Your task to perform on an android device: open a bookmark in the chrome app Image 0: 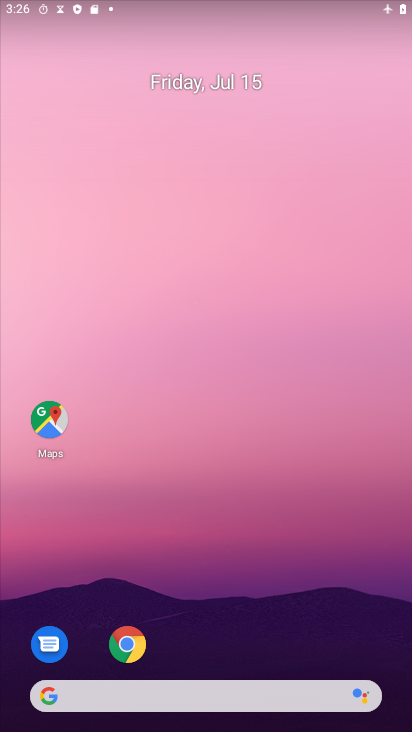
Step 0: drag from (314, 675) to (410, 57)
Your task to perform on an android device: open a bookmark in the chrome app Image 1: 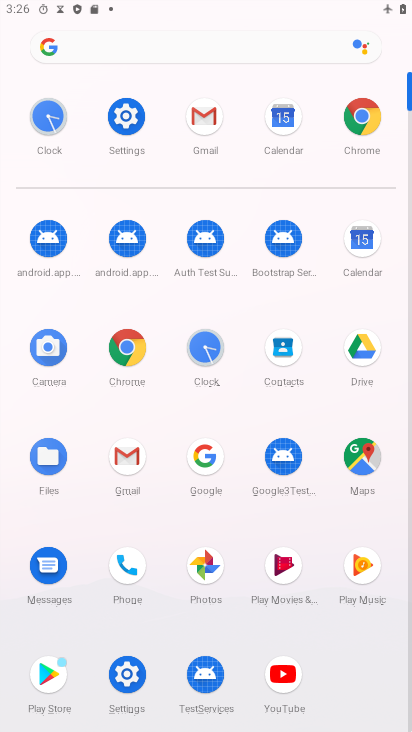
Step 1: click (140, 351)
Your task to perform on an android device: open a bookmark in the chrome app Image 2: 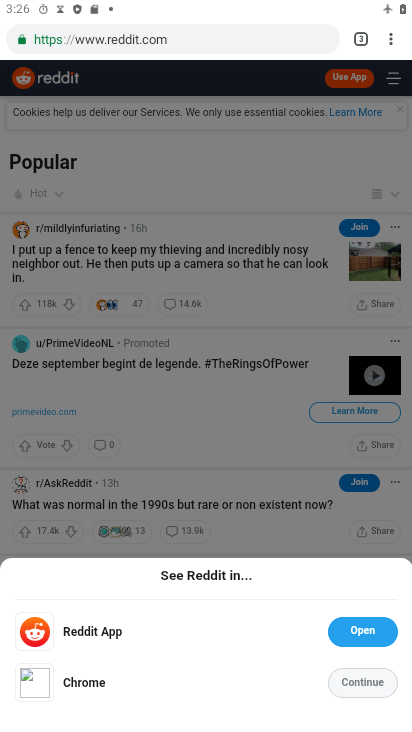
Step 2: click (382, 34)
Your task to perform on an android device: open a bookmark in the chrome app Image 3: 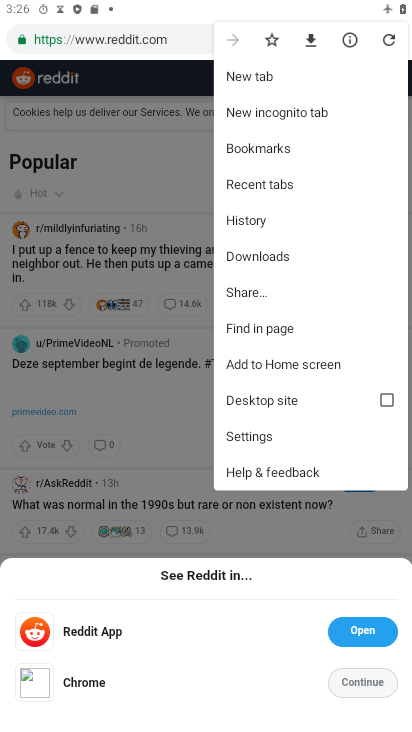
Step 3: click (303, 145)
Your task to perform on an android device: open a bookmark in the chrome app Image 4: 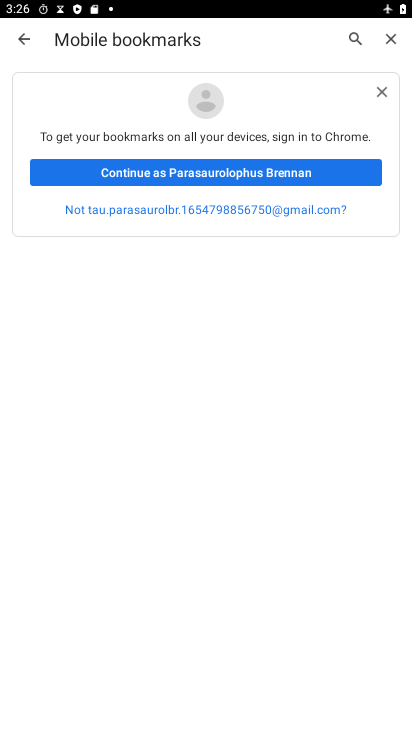
Step 4: task complete